Your task to perform on an android device: turn off javascript in the chrome app Image 0: 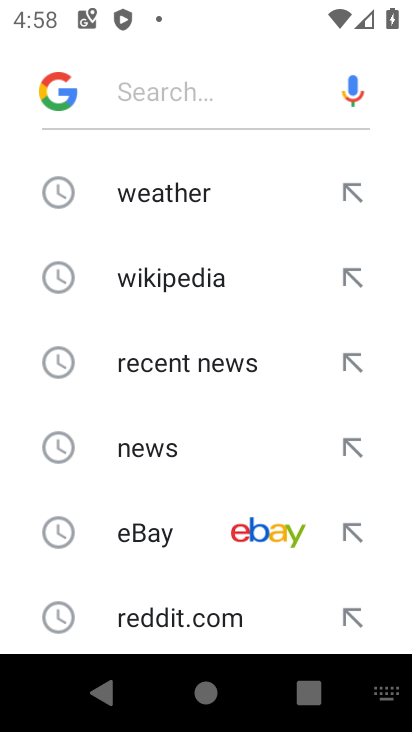
Step 0: press home button
Your task to perform on an android device: turn off javascript in the chrome app Image 1: 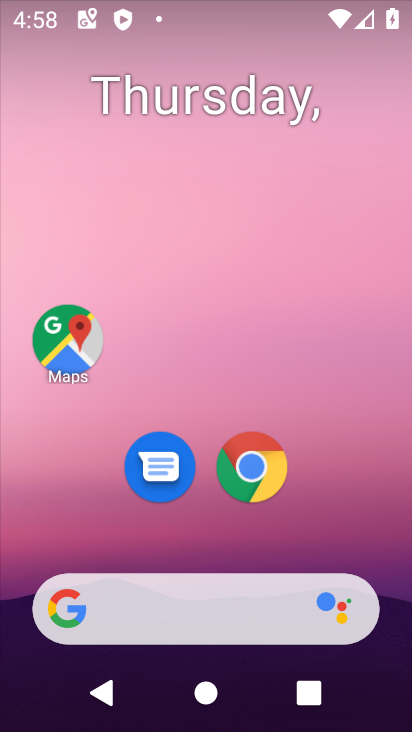
Step 1: click (262, 495)
Your task to perform on an android device: turn off javascript in the chrome app Image 2: 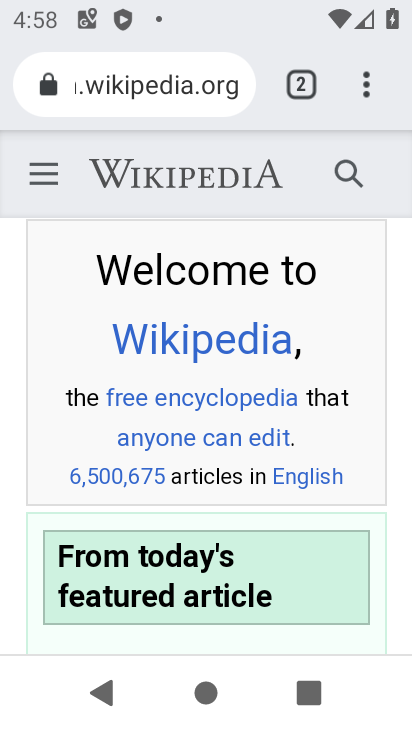
Step 2: click (378, 83)
Your task to perform on an android device: turn off javascript in the chrome app Image 3: 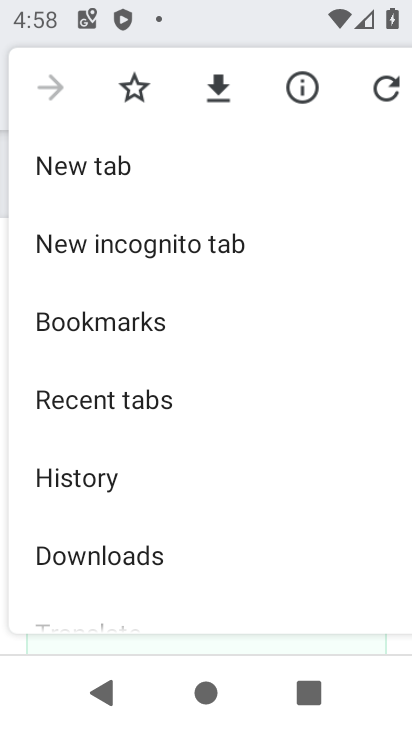
Step 3: drag from (245, 597) to (243, 331)
Your task to perform on an android device: turn off javascript in the chrome app Image 4: 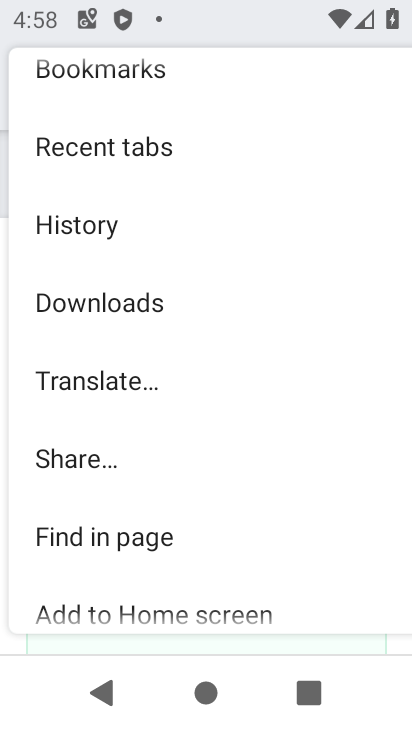
Step 4: drag from (208, 544) to (274, 103)
Your task to perform on an android device: turn off javascript in the chrome app Image 5: 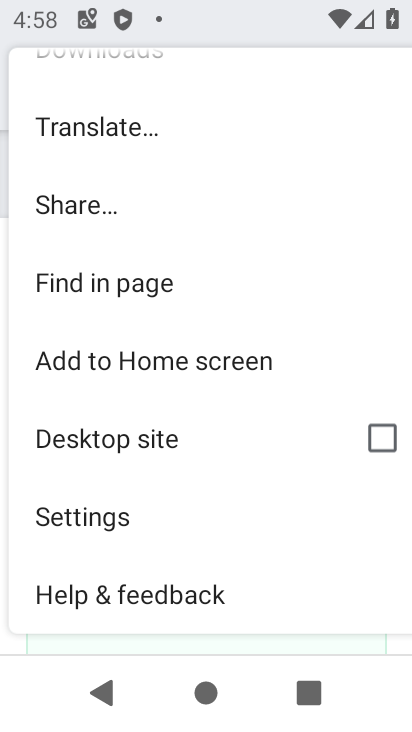
Step 5: click (205, 501)
Your task to perform on an android device: turn off javascript in the chrome app Image 6: 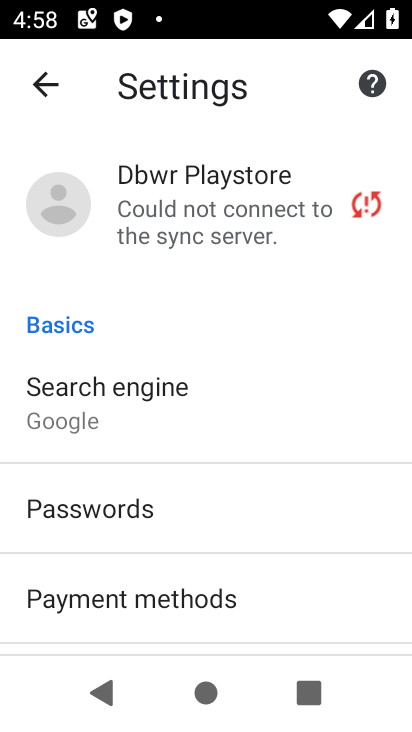
Step 6: drag from (268, 596) to (321, 166)
Your task to perform on an android device: turn off javascript in the chrome app Image 7: 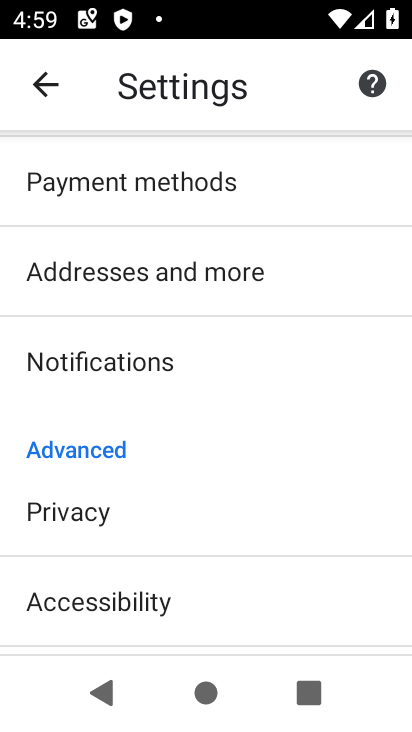
Step 7: drag from (276, 546) to (287, 254)
Your task to perform on an android device: turn off javascript in the chrome app Image 8: 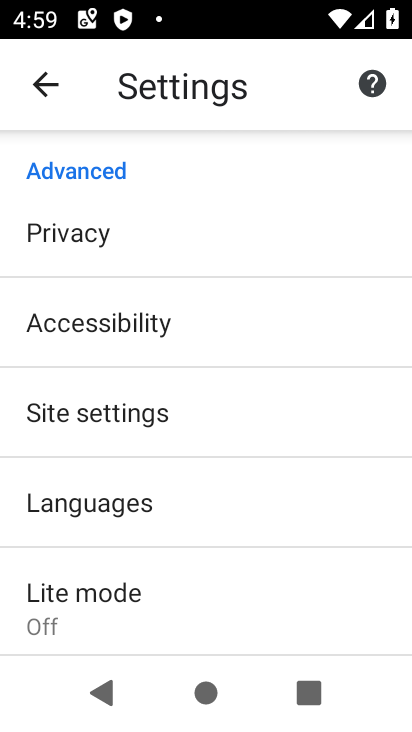
Step 8: click (305, 428)
Your task to perform on an android device: turn off javascript in the chrome app Image 9: 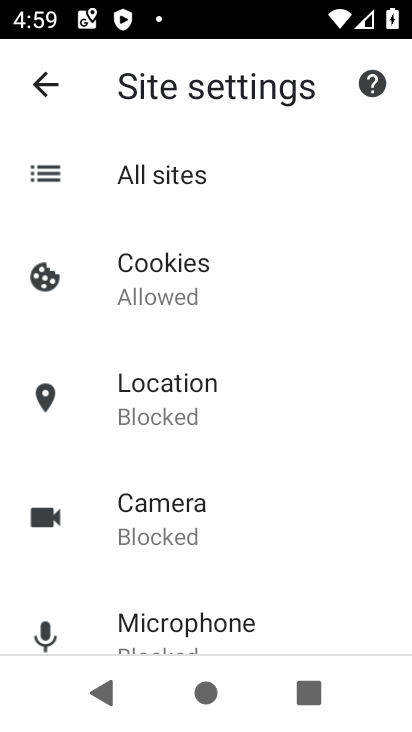
Step 9: drag from (289, 584) to (283, 223)
Your task to perform on an android device: turn off javascript in the chrome app Image 10: 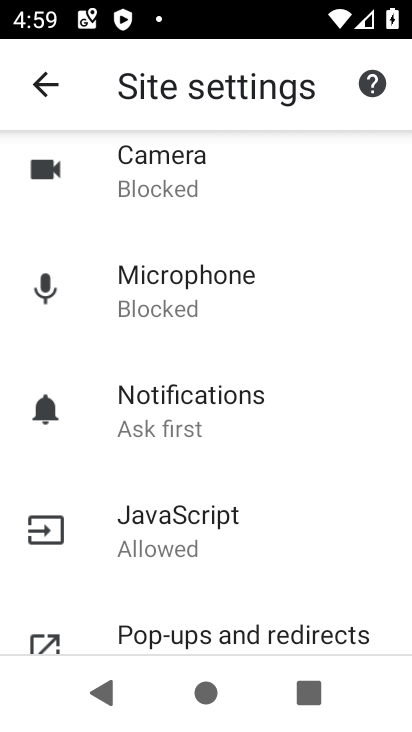
Step 10: click (218, 518)
Your task to perform on an android device: turn off javascript in the chrome app Image 11: 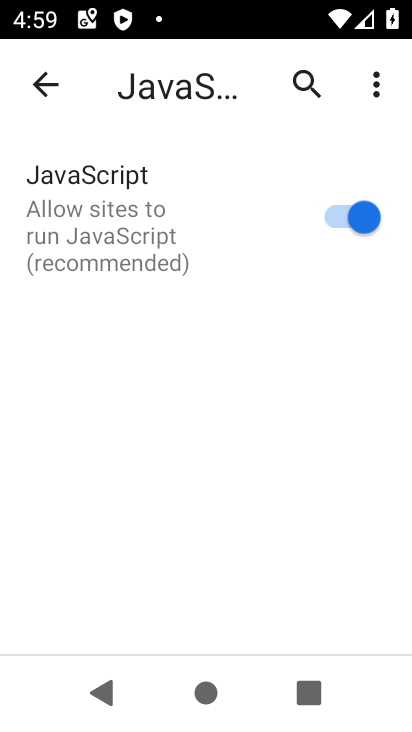
Step 11: click (343, 204)
Your task to perform on an android device: turn off javascript in the chrome app Image 12: 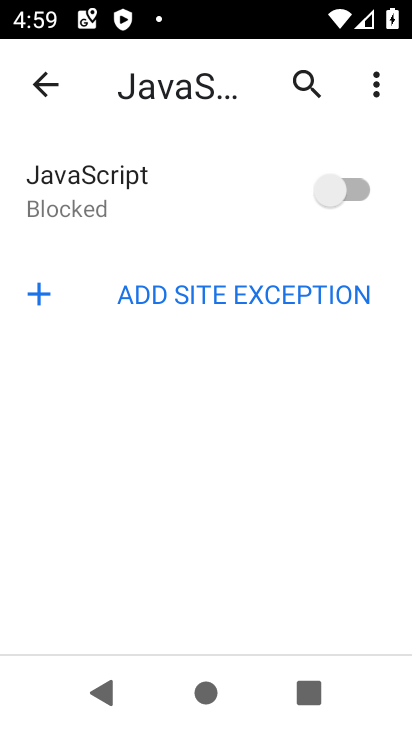
Step 12: task complete